Your task to perform on an android device: Search for "alienware aurora" on target.com, select the first entry, and add it to the cart. Image 0: 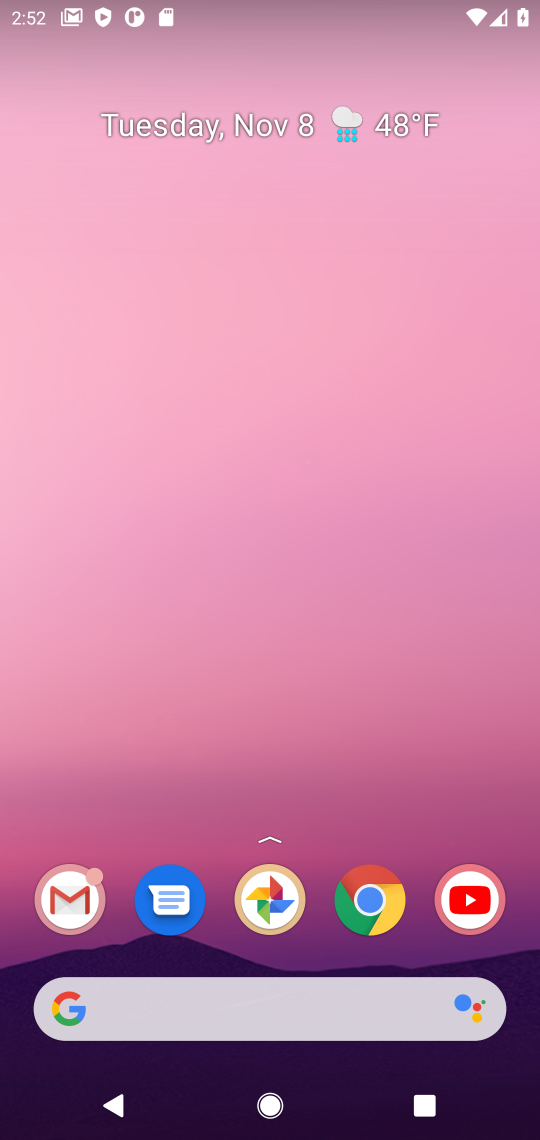
Step 0: click (369, 906)
Your task to perform on an android device: Search for "alienware aurora" on target.com, select the first entry, and add it to the cart. Image 1: 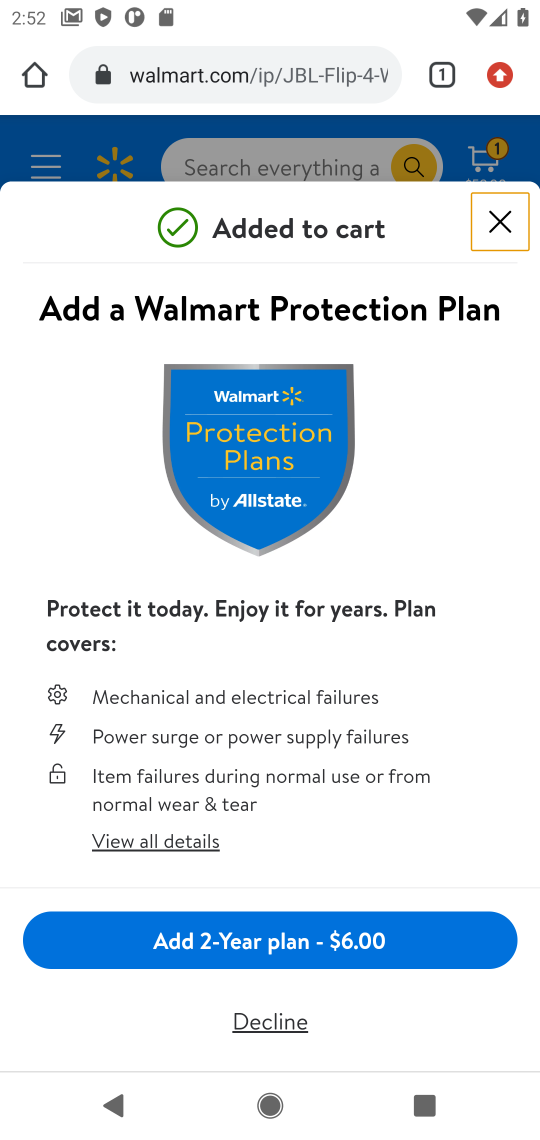
Step 1: click (22, 72)
Your task to perform on an android device: Search for "alienware aurora" on target.com, select the first entry, and add it to the cart. Image 2: 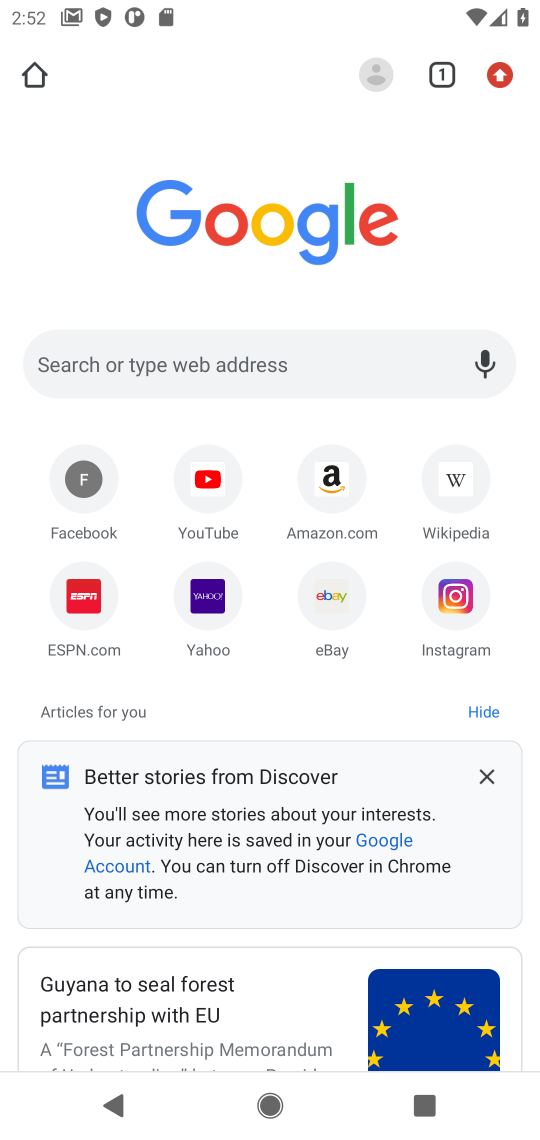
Step 2: click (384, 374)
Your task to perform on an android device: Search for "alienware aurora" on target.com, select the first entry, and add it to the cart. Image 3: 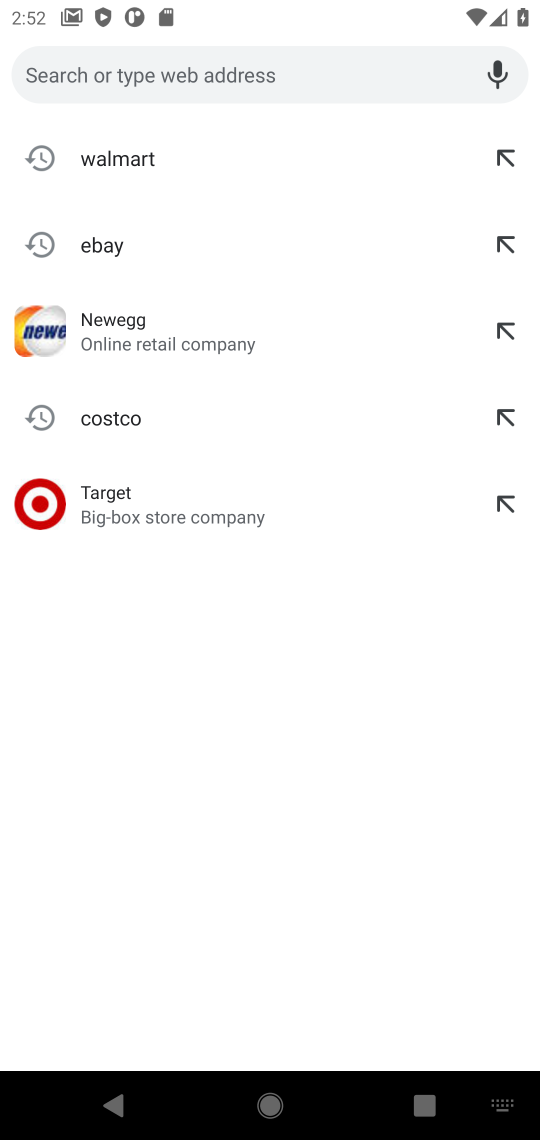
Step 3: click (122, 493)
Your task to perform on an android device: Search for "alienware aurora" on target.com, select the first entry, and add it to the cart. Image 4: 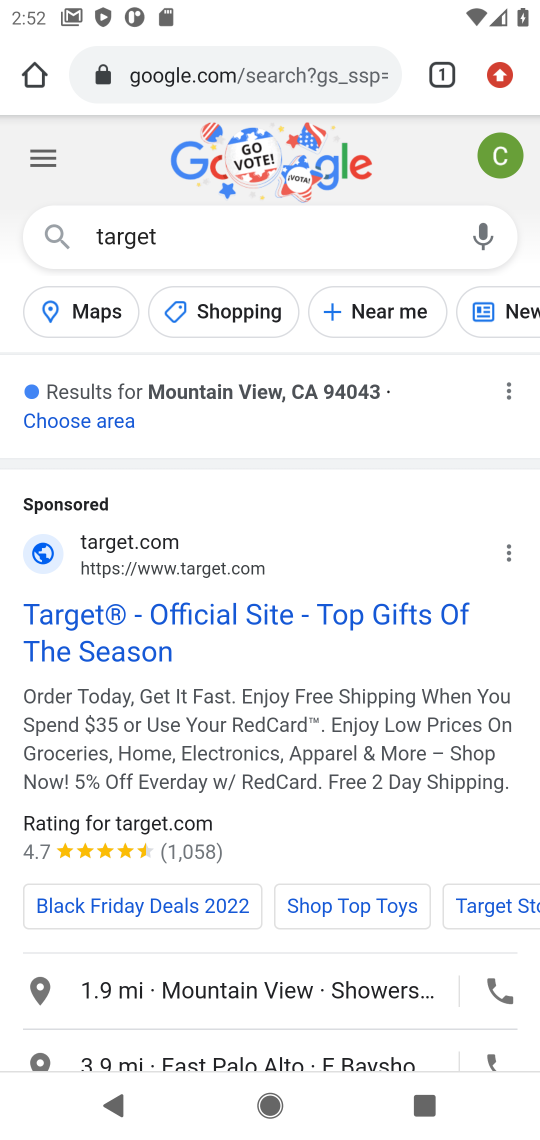
Step 4: click (181, 560)
Your task to perform on an android device: Search for "alienware aurora" on target.com, select the first entry, and add it to the cart. Image 5: 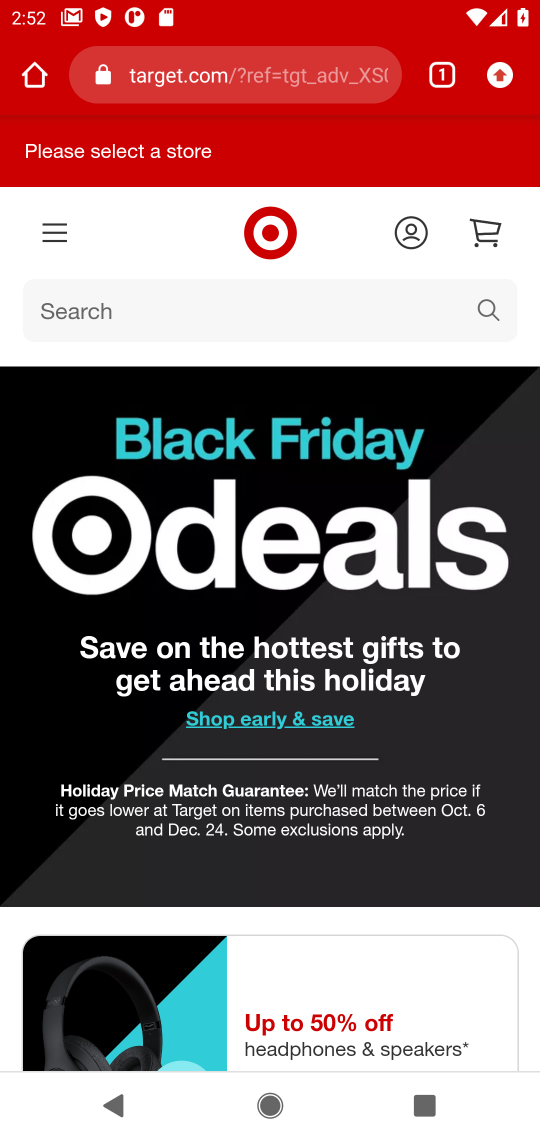
Step 5: click (484, 311)
Your task to perform on an android device: Search for "alienware aurora" on target.com, select the first entry, and add it to the cart. Image 6: 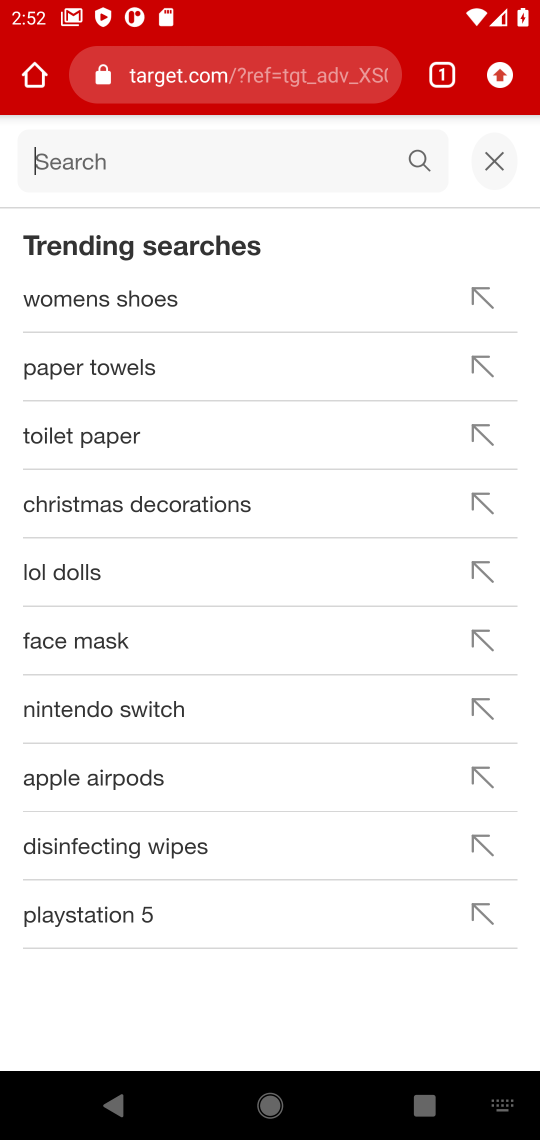
Step 6: type "alienware aurora"
Your task to perform on an android device: Search for "alienware aurora" on target.com, select the first entry, and add it to the cart. Image 7: 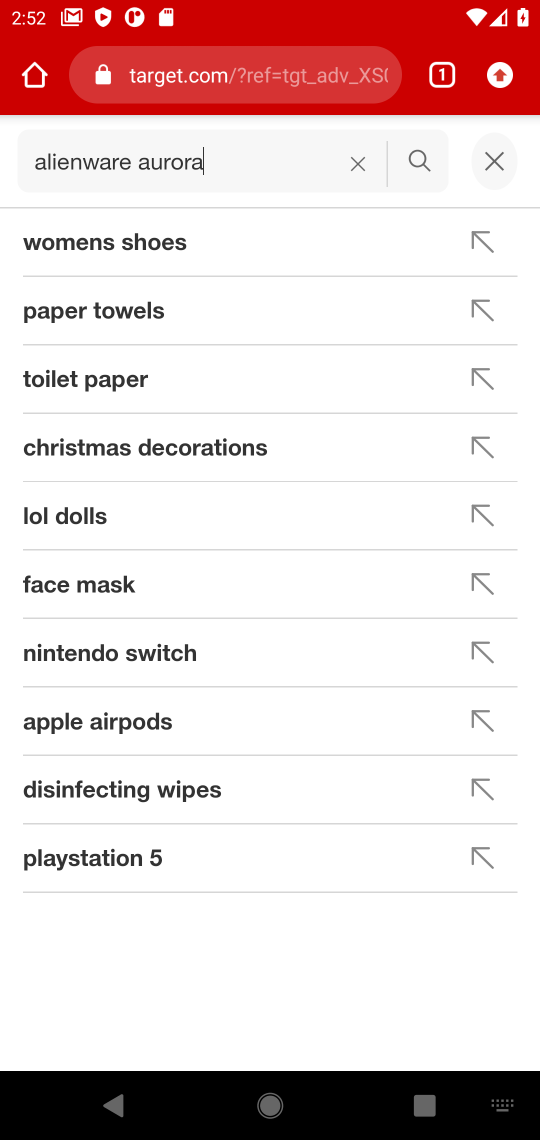
Step 7: press enter
Your task to perform on an android device: Search for "alienware aurora" on target.com, select the first entry, and add it to the cart. Image 8: 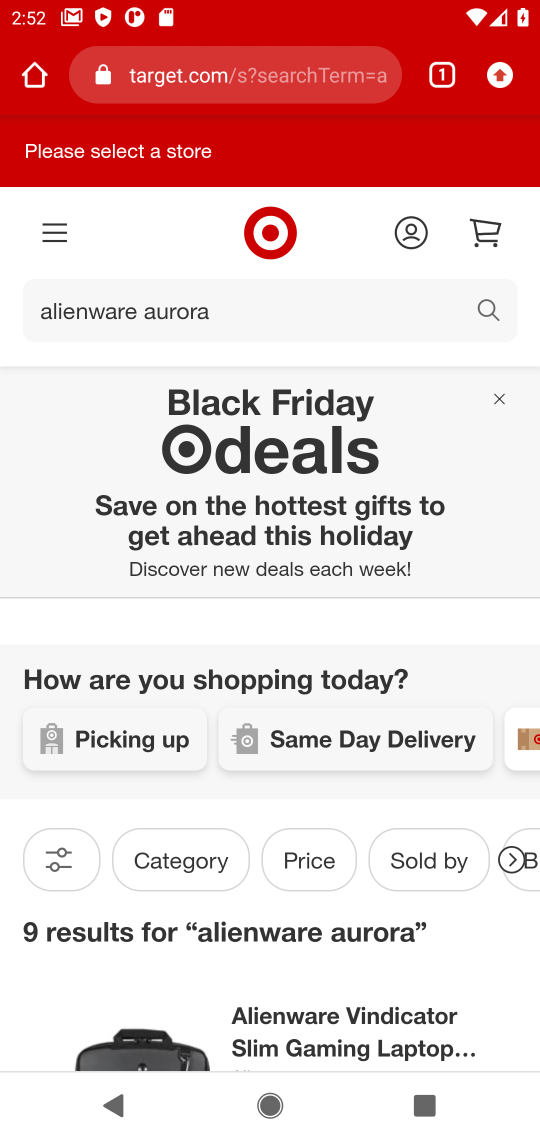
Step 8: task complete